Your task to perform on an android device: turn pop-ups on in chrome Image 0: 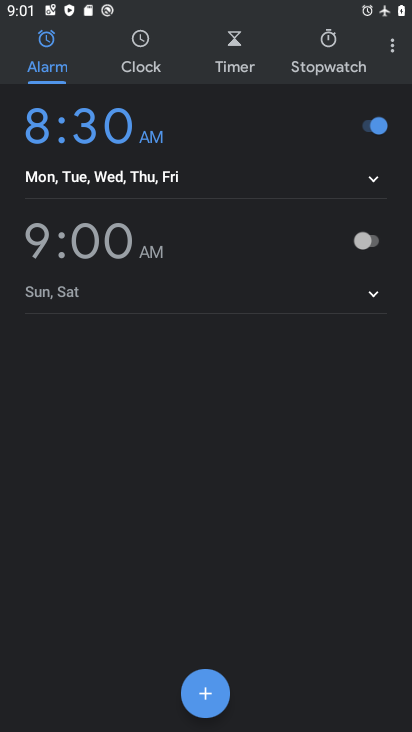
Step 0: press home button
Your task to perform on an android device: turn pop-ups on in chrome Image 1: 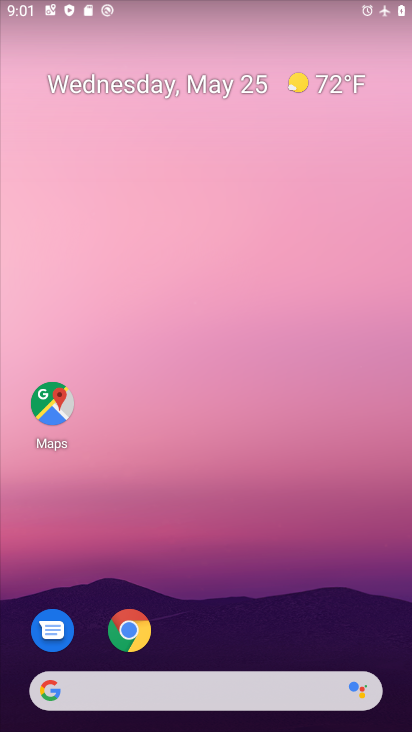
Step 1: click (149, 625)
Your task to perform on an android device: turn pop-ups on in chrome Image 2: 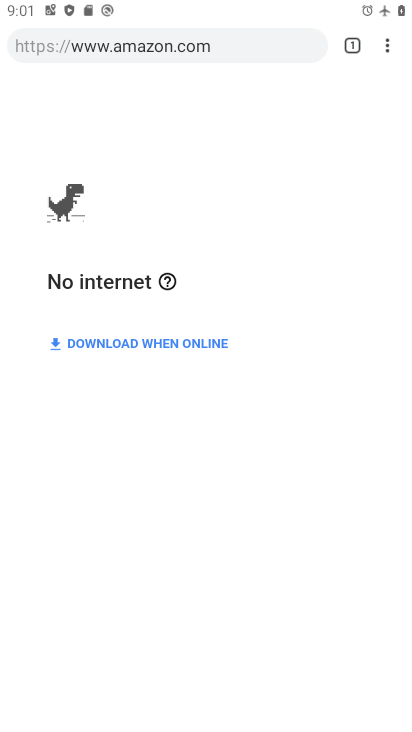
Step 2: click (390, 35)
Your task to perform on an android device: turn pop-ups on in chrome Image 3: 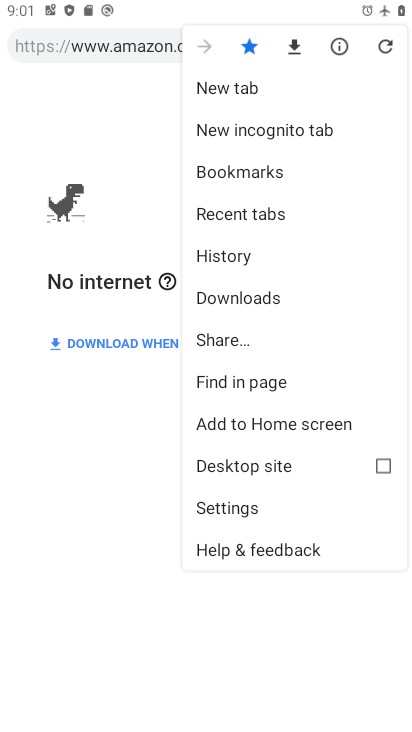
Step 3: click (269, 507)
Your task to perform on an android device: turn pop-ups on in chrome Image 4: 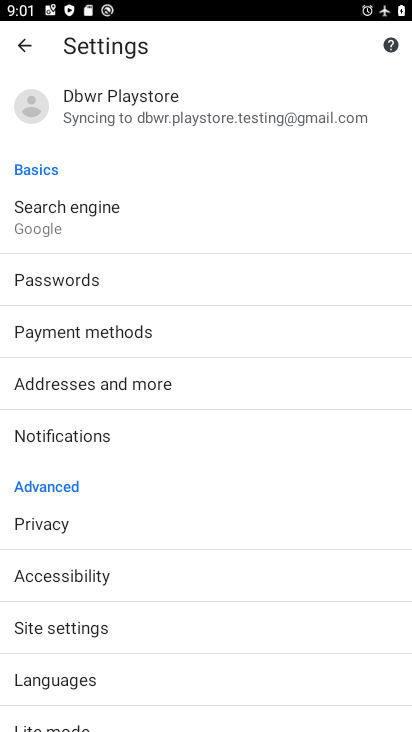
Step 4: drag from (159, 632) to (203, 433)
Your task to perform on an android device: turn pop-ups on in chrome Image 5: 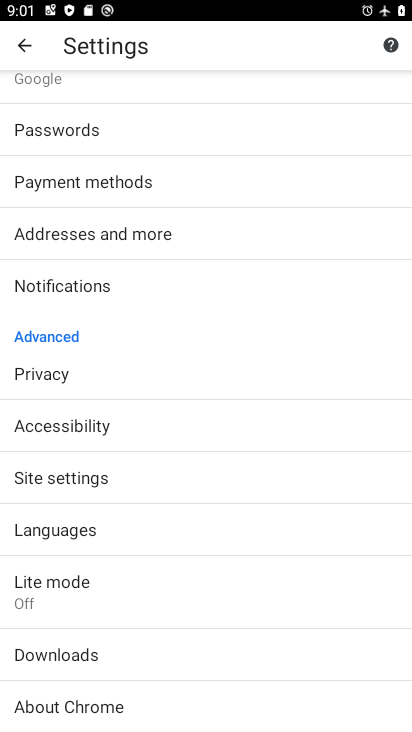
Step 5: click (126, 494)
Your task to perform on an android device: turn pop-ups on in chrome Image 6: 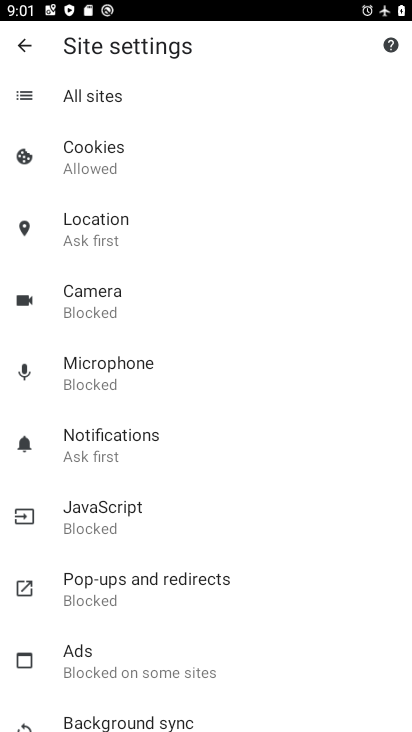
Step 6: click (168, 605)
Your task to perform on an android device: turn pop-ups on in chrome Image 7: 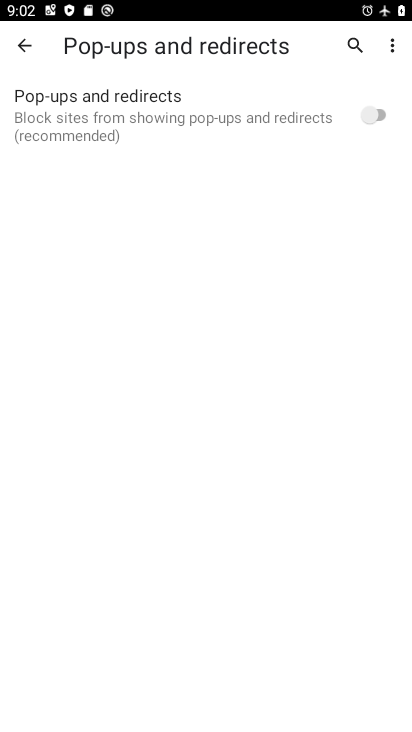
Step 7: click (381, 110)
Your task to perform on an android device: turn pop-ups on in chrome Image 8: 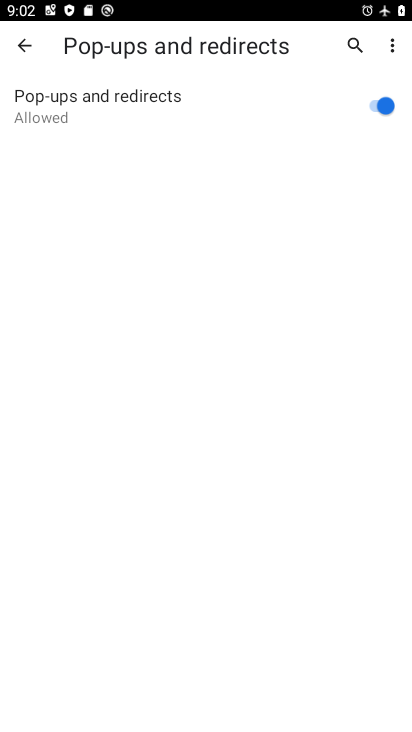
Step 8: task complete